Your task to perform on an android device: What is the recent news? Image 0: 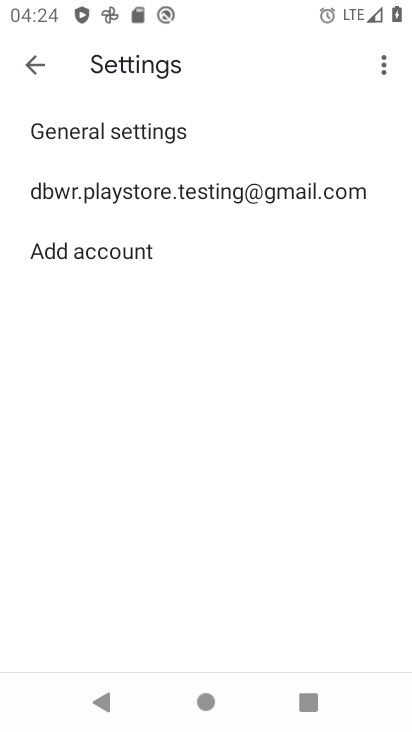
Step 0: press home button
Your task to perform on an android device: What is the recent news? Image 1: 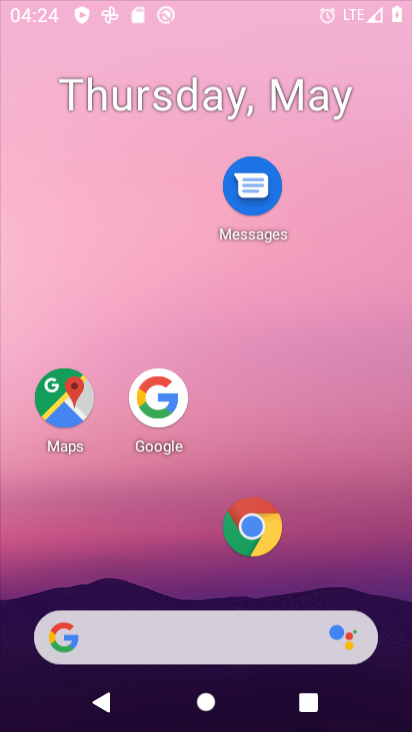
Step 1: drag from (242, 556) to (342, 43)
Your task to perform on an android device: What is the recent news? Image 2: 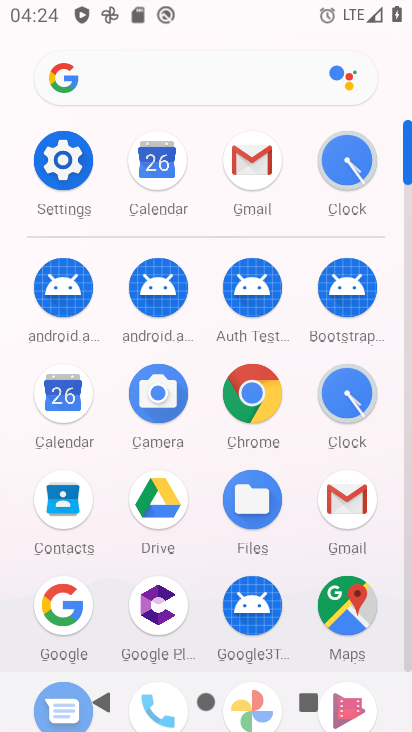
Step 2: click (186, 77)
Your task to perform on an android device: What is the recent news? Image 3: 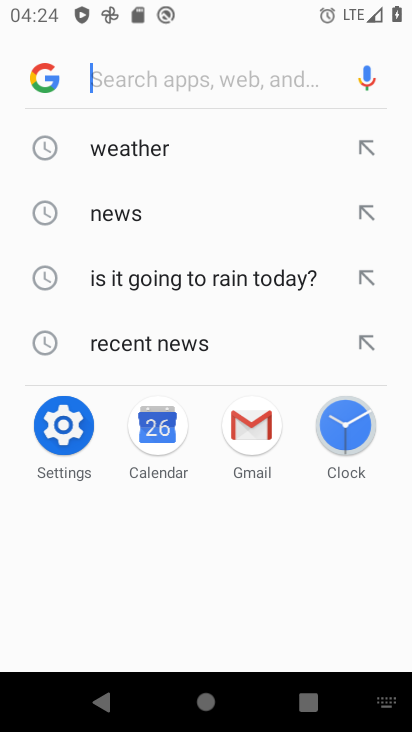
Step 3: click (225, 324)
Your task to perform on an android device: What is the recent news? Image 4: 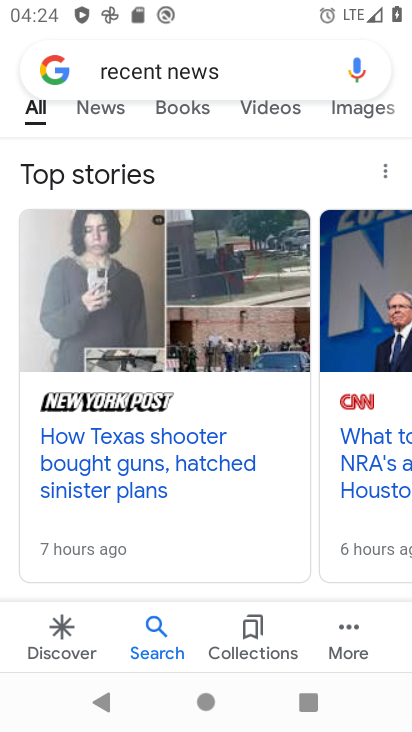
Step 4: task complete